Your task to perform on an android device: Search for pizza restaurants on Maps Image 0: 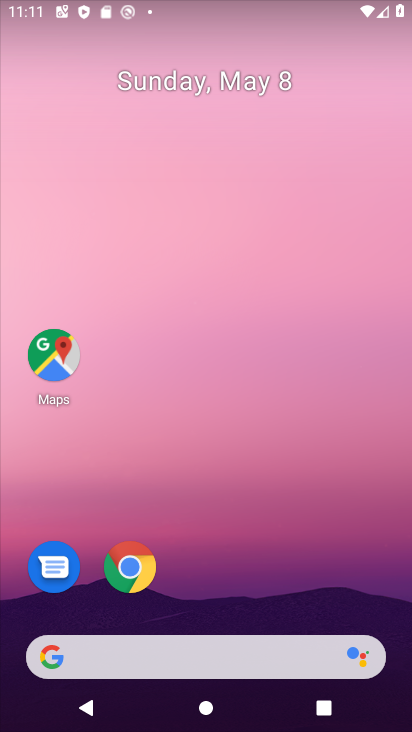
Step 0: press home button
Your task to perform on an android device: Search for pizza restaurants on Maps Image 1: 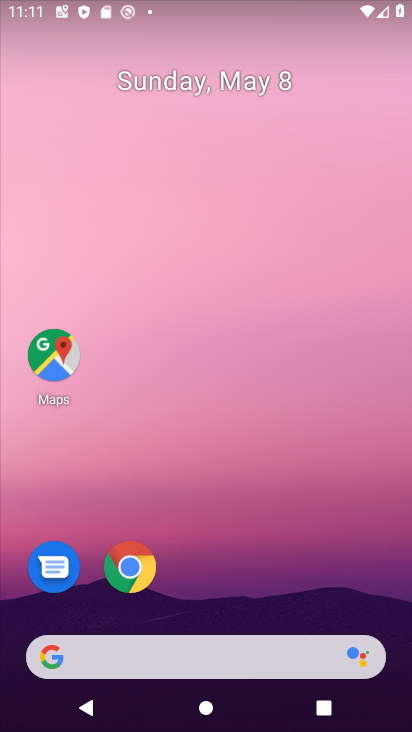
Step 1: click (55, 343)
Your task to perform on an android device: Search for pizza restaurants on Maps Image 2: 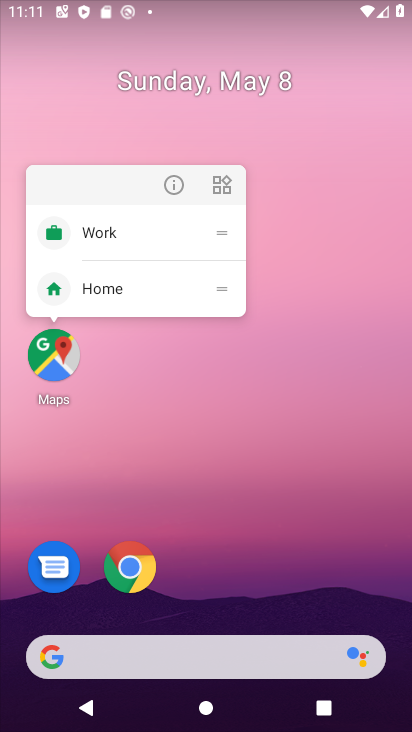
Step 2: click (31, 359)
Your task to perform on an android device: Search for pizza restaurants on Maps Image 3: 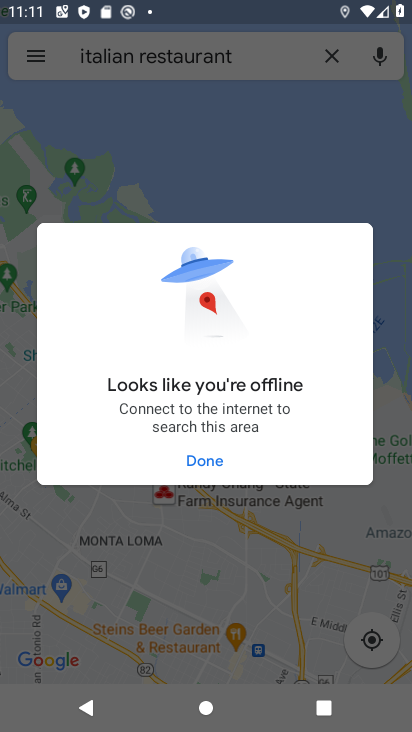
Step 3: click (192, 463)
Your task to perform on an android device: Search for pizza restaurants on Maps Image 4: 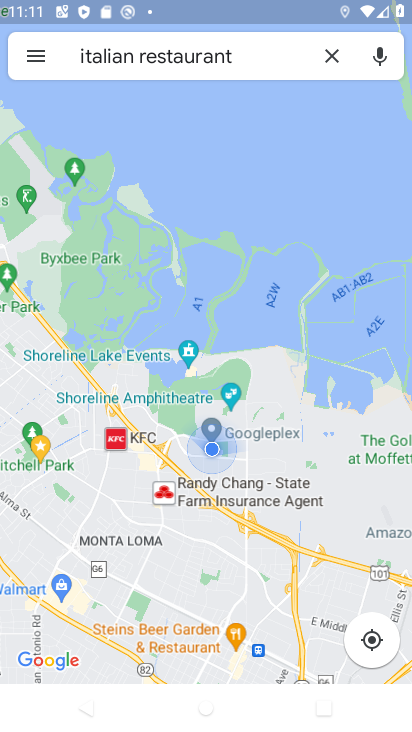
Step 4: click (333, 56)
Your task to perform on an android device: Search for pizza restaurants on Maps Image 5: 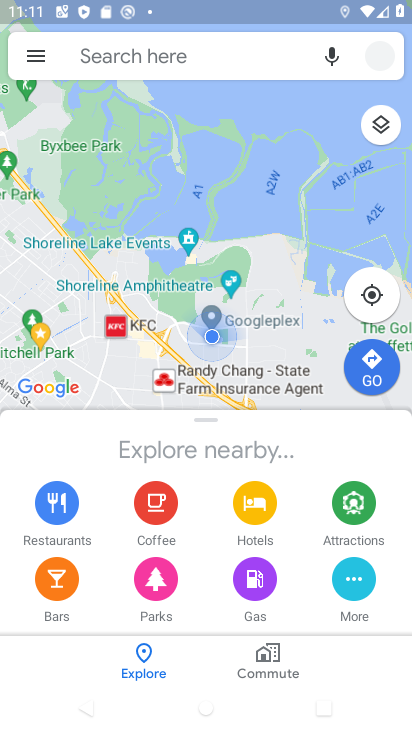
Step 5: click (133, 55)
Your task to perform on an android device: Search for pizza restaurants on Maps Image 6: 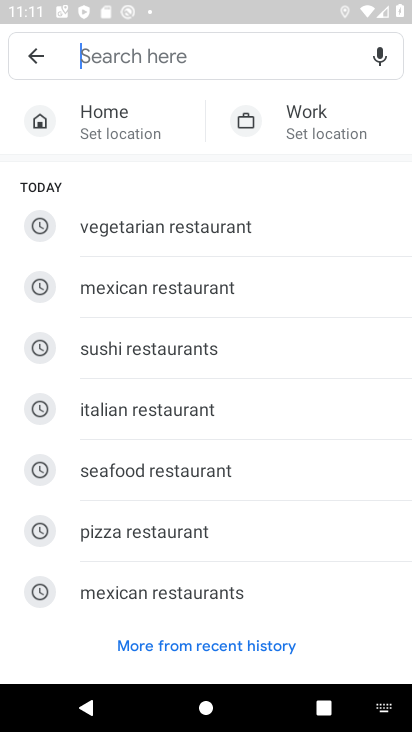
Step 6: click (148, 528)
Your task to perform on an android device: Search for pizza restaurants on Maps Image 7: 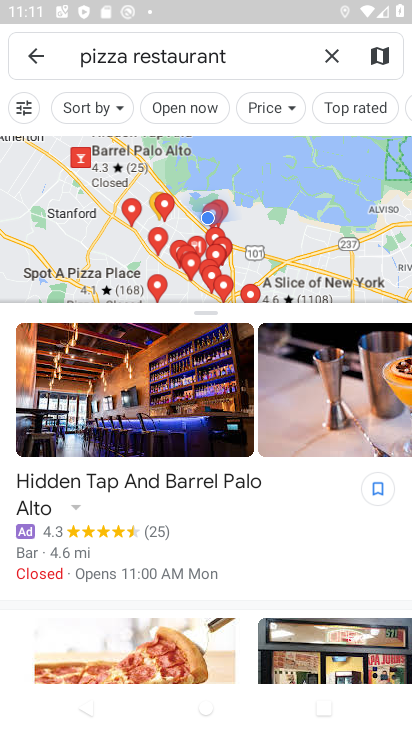
Step 7: task complete